Your task to perform on an android device: manage bookmarks in the chrome app Image 0: 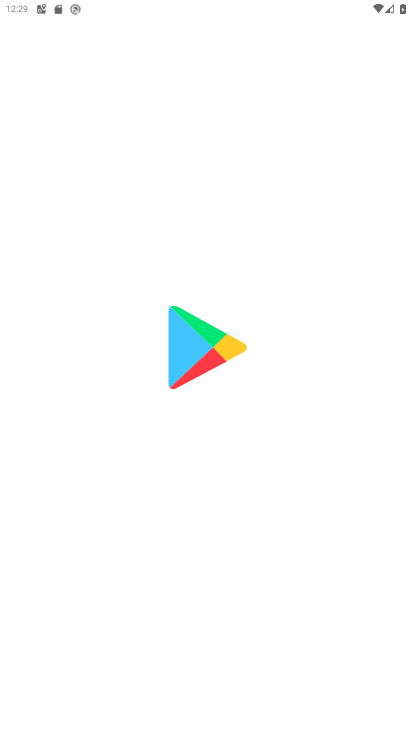
Step 0: click (342, 34)
Your task to perform on an android device: manage bookmarks in the chrome app Image 1: 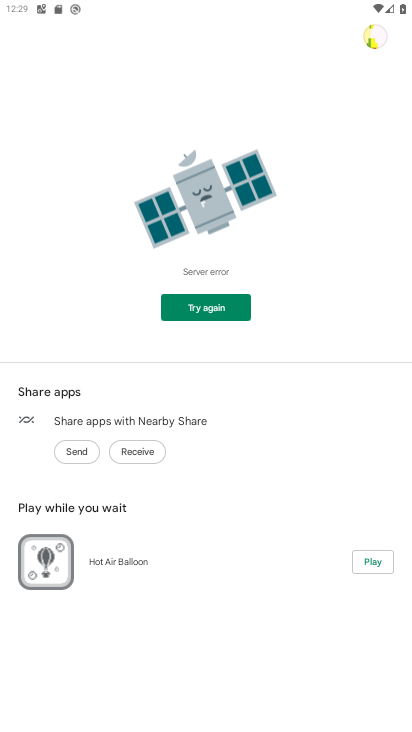
Step 1: press home button
Your task to perform on an android device: manage bookmarks in the chrome app Image 2: 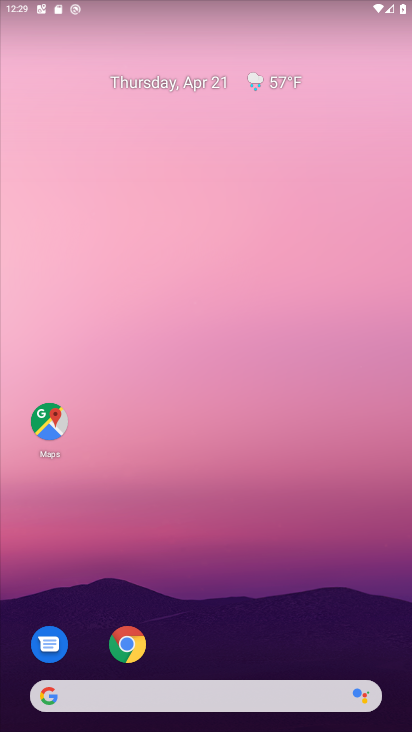
Step 2: click (130, 652)
Your task to perform on an android device: manage bookmarks in the chrome app Image 3: 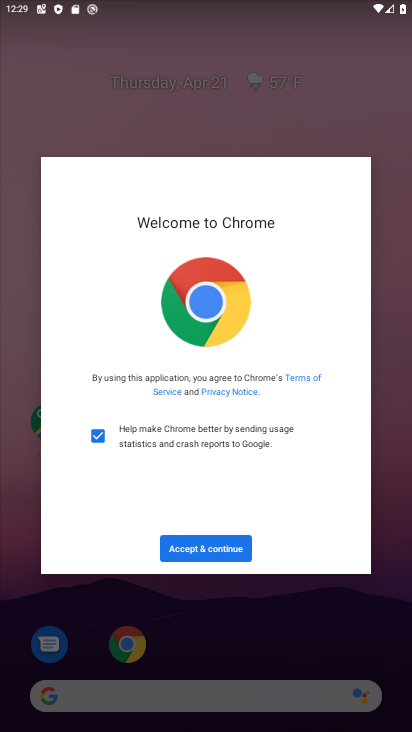
Step 3: click (196, 557)
Your task to perform on an android device: manage bookmarks in the chrome app Image 4: 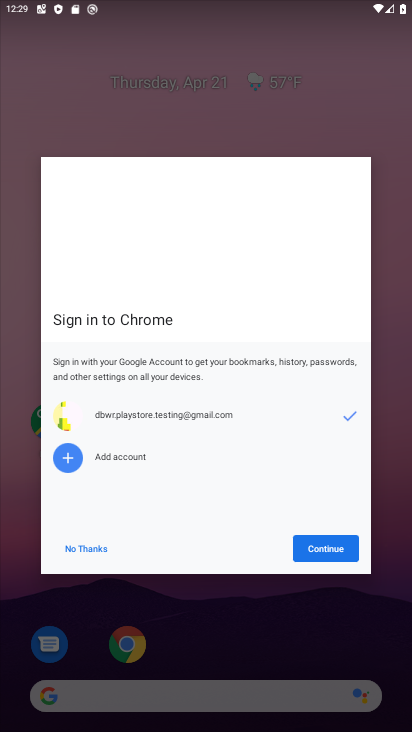
Step 4: click (350, 540)
Your task to perform on an android device: manage bookmarks in the chrome app Image 5: 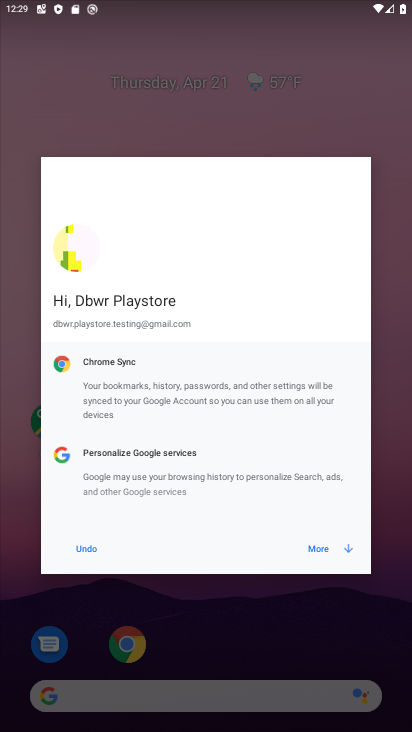
Step 5: click (331, 544)
Your task to perform on an android device: manage bookmarks in the chrome app Image 6: 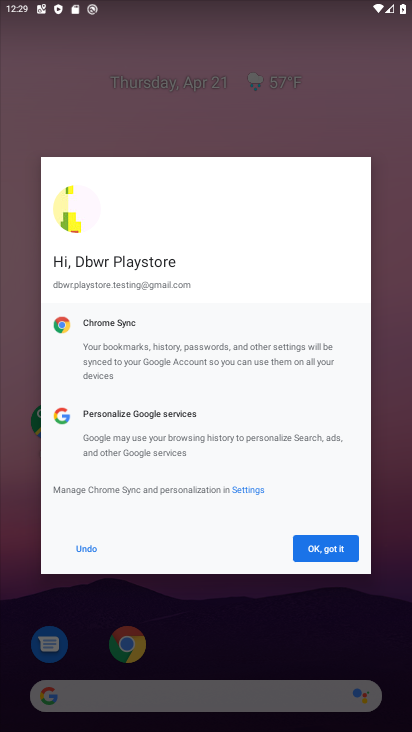
Step 6: click (329, 543)
Your task to perform on an android device: manage bookmarks in the chrome app Image 7: 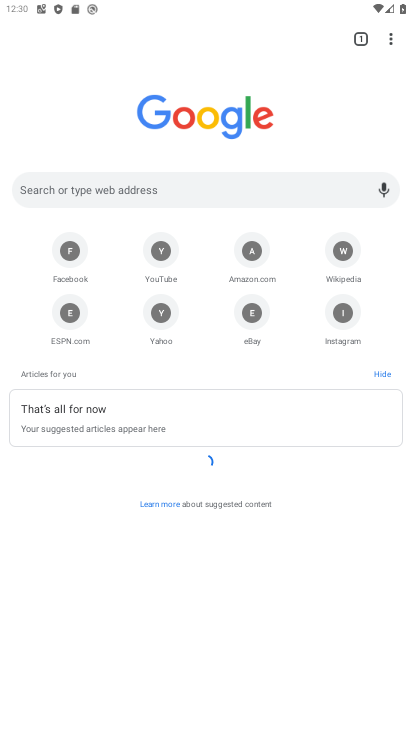
Step 7: task complete